Your task to perform on an android device: toggle airplane mode Image 0: 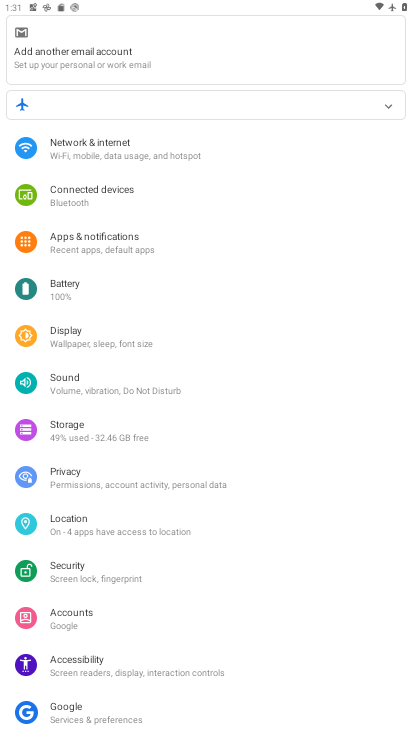
Step 0: press home button
Your task to perform on an android device: toggle airplane mode Image 1: 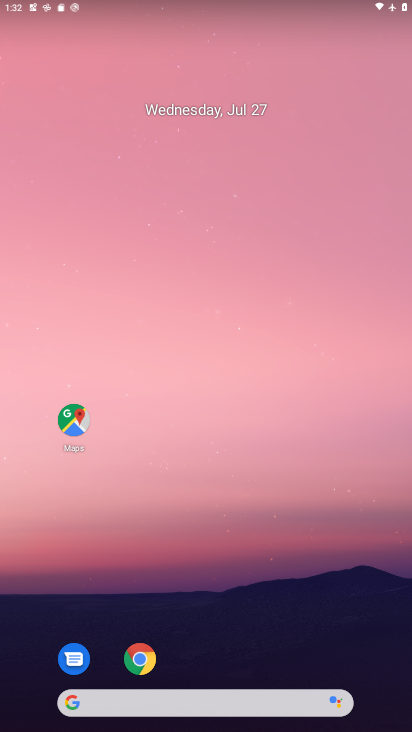
Step 1: drag from (316, 33) to (375, 599)
Your task to perform on an android device: toggle airplane mode Image 2: 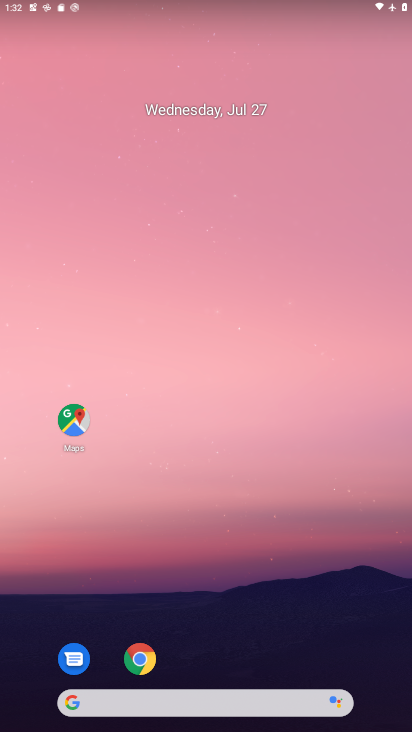
Step 2: drag from (366, 1) to (323, 526)
Your task to perform on an android device: toggle airplane mode Image 3: 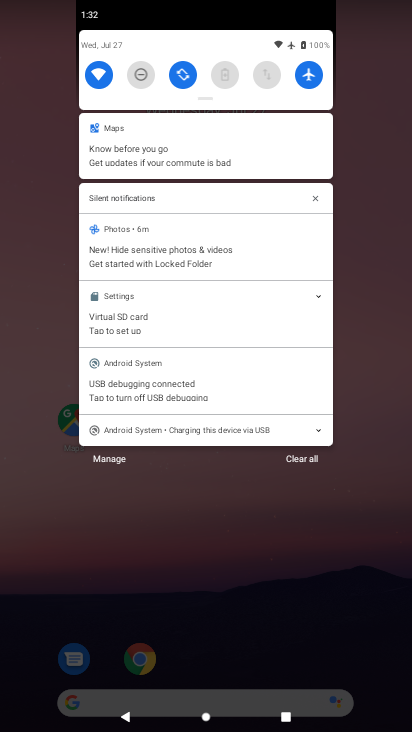
Step 3: click (313, 64)
Your task to perform on an android device: toggle airplane mode Image 4: 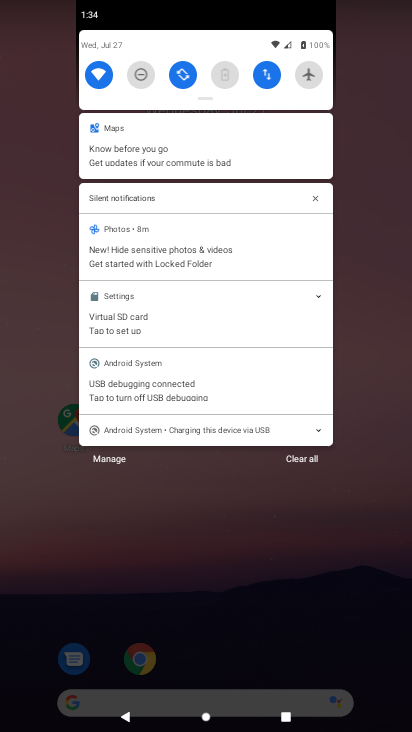
Step 4: task complete